Your task to perform on an android device: open app "Spotify: Music and Podcasts" (install if not already installed) Image 0: 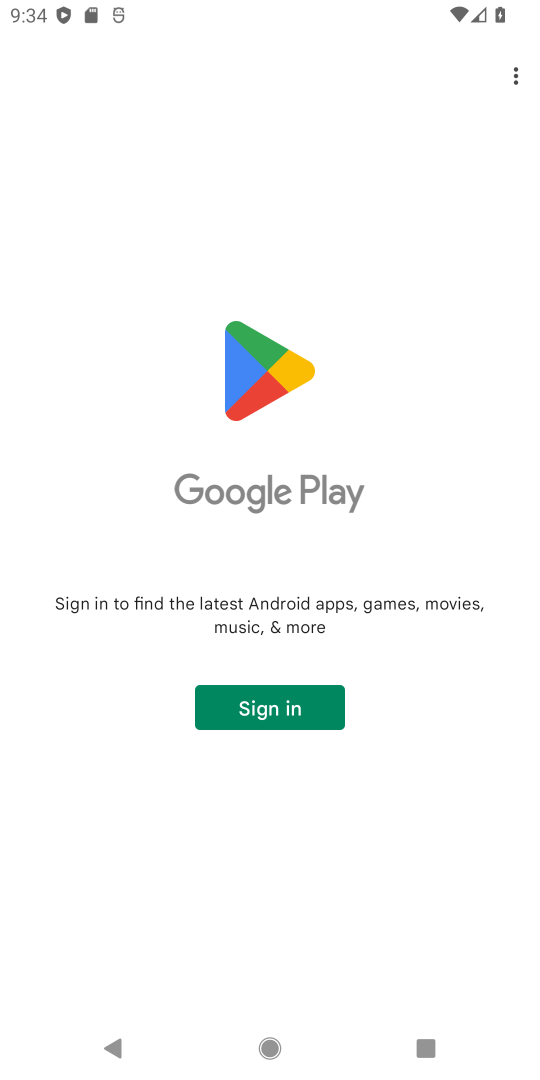
Step 0: task complete